Your task to perform on an android device: toggle sleep mode Image 0: 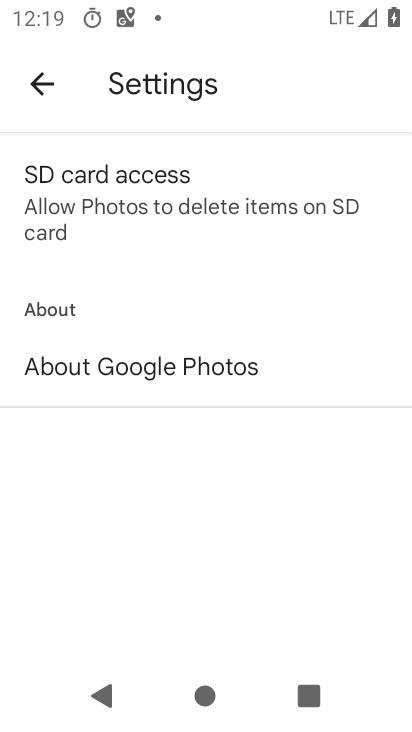
Step 0: press home button
Your task to perform on an android device: toggle sleep mode Image 1: 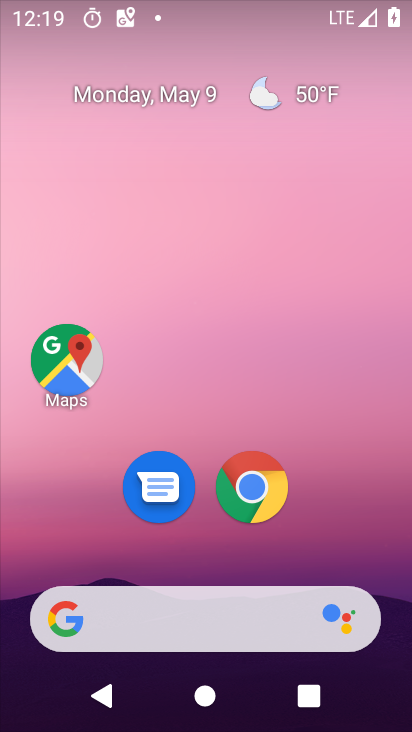
Step 1: drag from (337, 499) to (406, 144)
Your task to perform on an android device: toggle sleep mode Image 2: 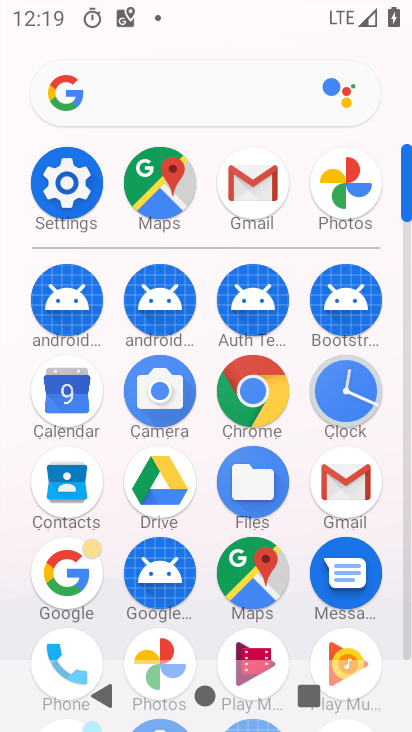
Step 2: click (92, 195)
Your task to perform on an android device: toggle sleep mode Image 3: 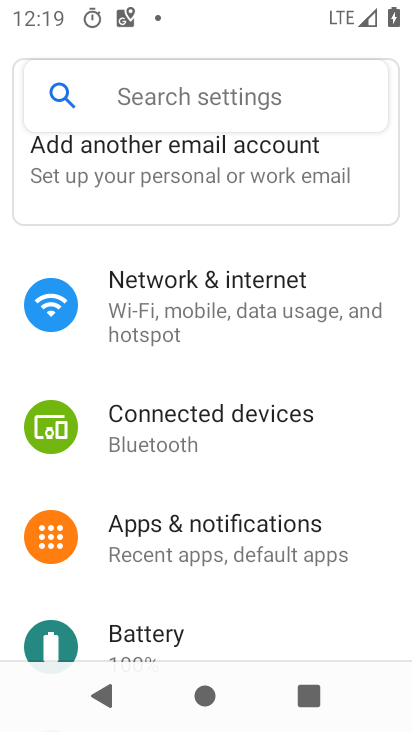
Step 3: drag from (270, 548) to (304, 191)
Your task to perform on an android device: toggle sleep mode Image 4: 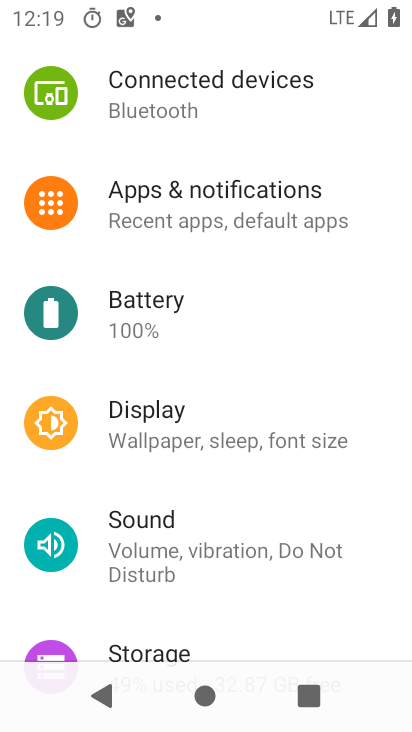
Step 4: click (260, 443)
Your task to perform on an android device: toggle sleep mode Image 5: 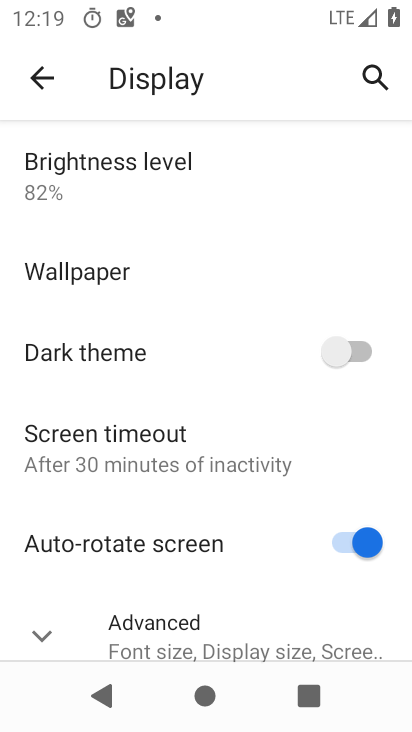
Step 5: drag from (182, 594) to (263, 253)
Your task to perform on an android device: toggle sleep mode Image 6: 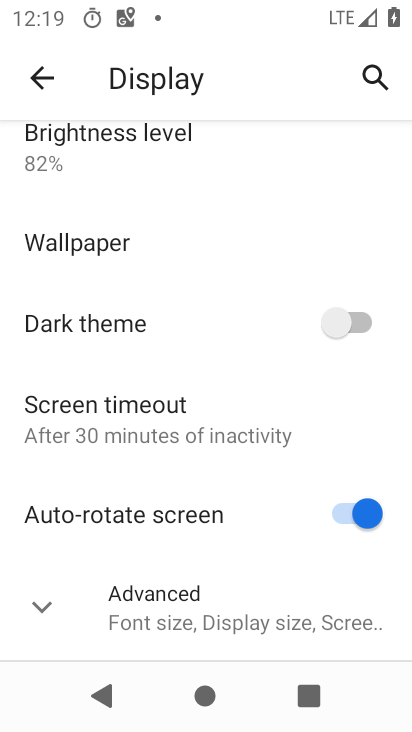
Step 6: click (41, 611)
Your task to perform on an android device: toggle sleep mode Image 7: 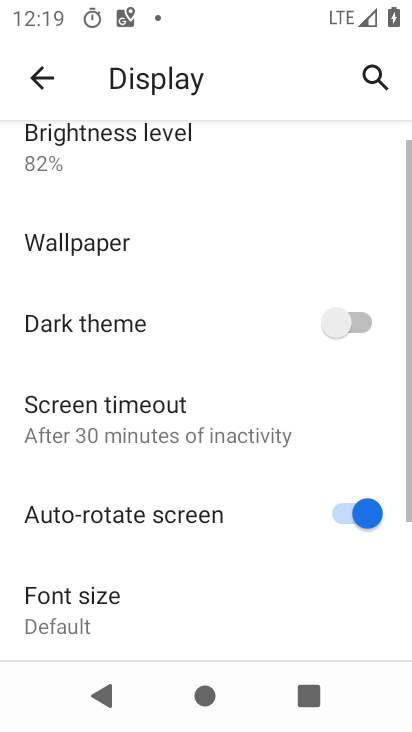
Step 7: task complete